Your task to perform on an android device: Open display settings Image 0: 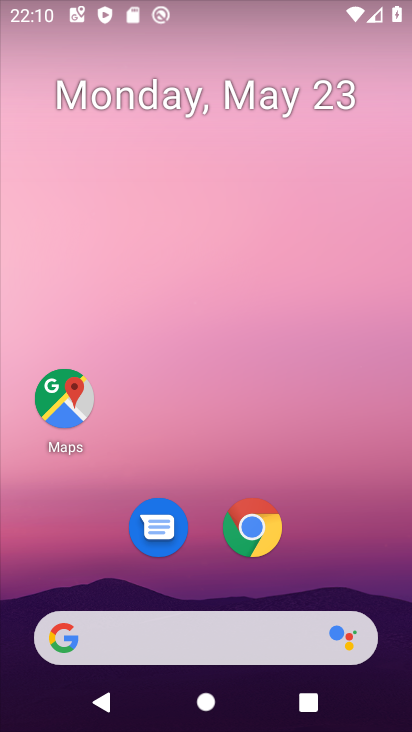
Step 0: drag from (207, 670) to (164, 145)
Your task to perform on an android device: Open display settings Image 1: 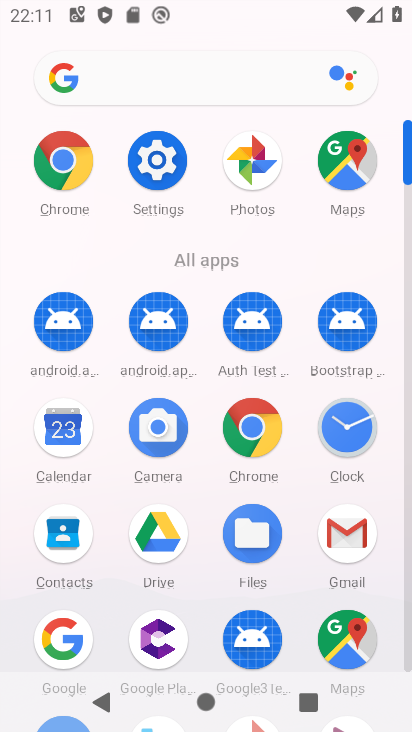
Step 1: click (147, 189)
Your task to perform on an android device: Open display settings Image 2: 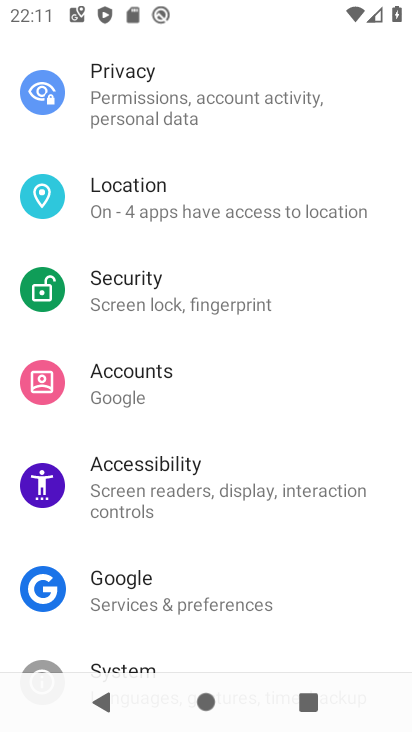
Step 2: drag from (183, 135) to (163, 632)
Your task to perform on an android device: Open display settings Image 3: 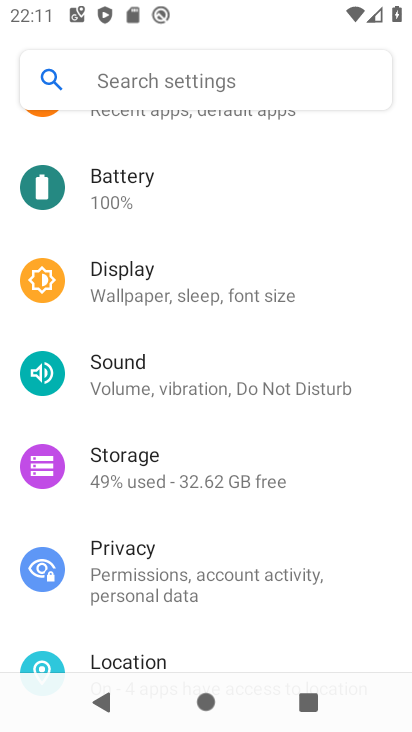
Step 3: click (120, 279)
Your task to perform on an android device: Open display settings Image 4: 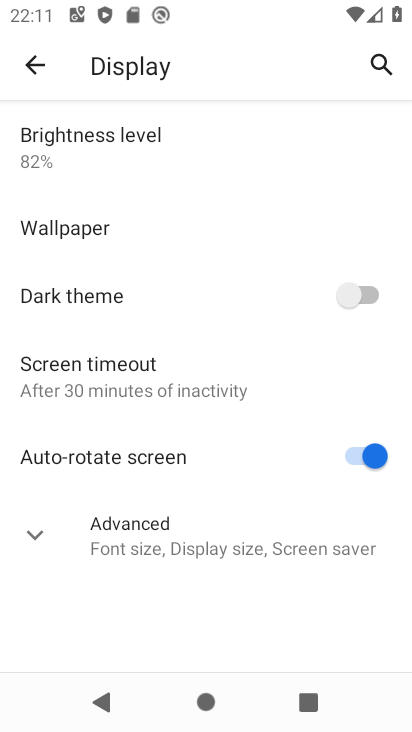
Step 4: task complete